Your task to perform on an android device: Go to network settings Image 0: 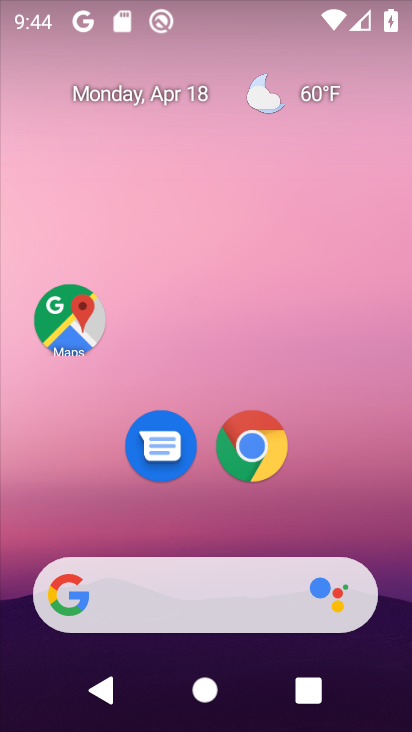
Step 0: drag from (388, 531) to (339, 109)
Your task to perform on an android device: Go to network settings Image 1: 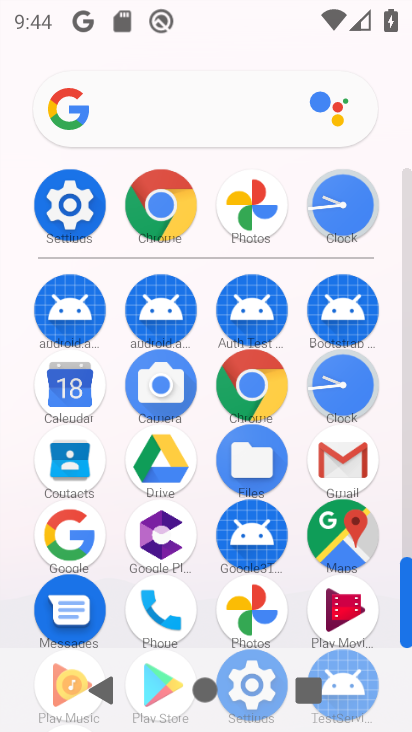
Step 1: click (73, 206)
Your task to perform on an android device: Go to network settings Image 2: 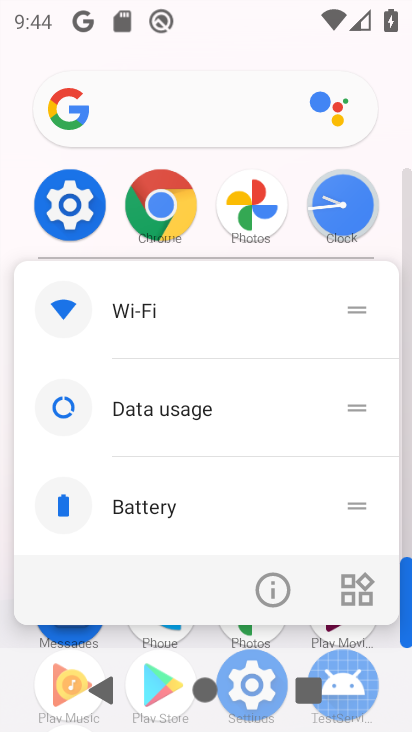
Step 2: click (74, 206)
Your task to perform on an android device: Go to network settings Image 3: 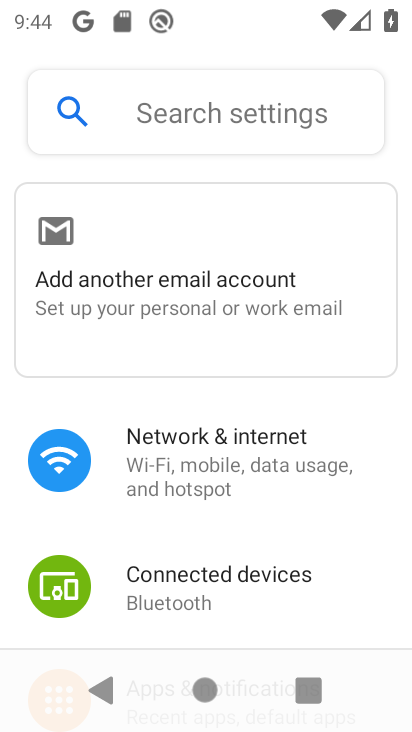
Step 3: click (214, 459)
Your task to perform on an android device: Go to network settings Image 4: 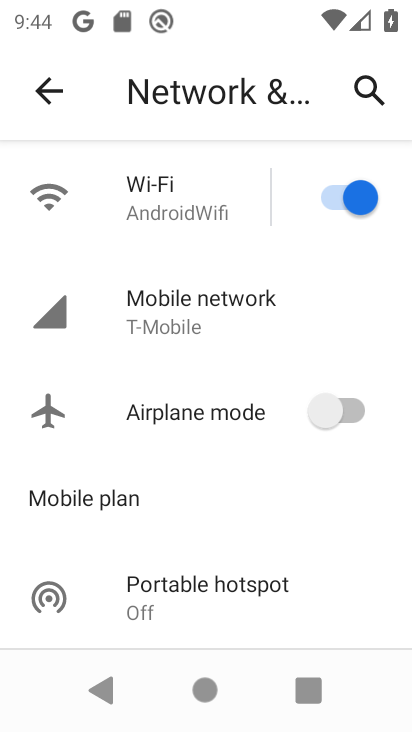
Step 4: task complete